Your task to perform on an android device: Play the latest video from the Wall Street Journal Image 0: 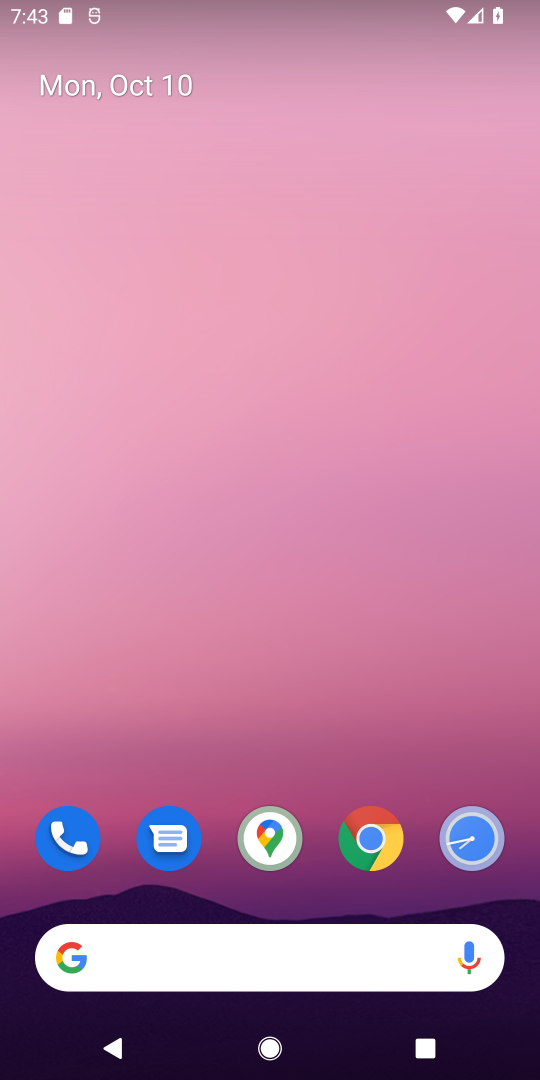
Step 0: drag from (291, 894) to (389, 100)
Your task to perform on an android device: Play the latest video from the Wall Street Journal Image 1: 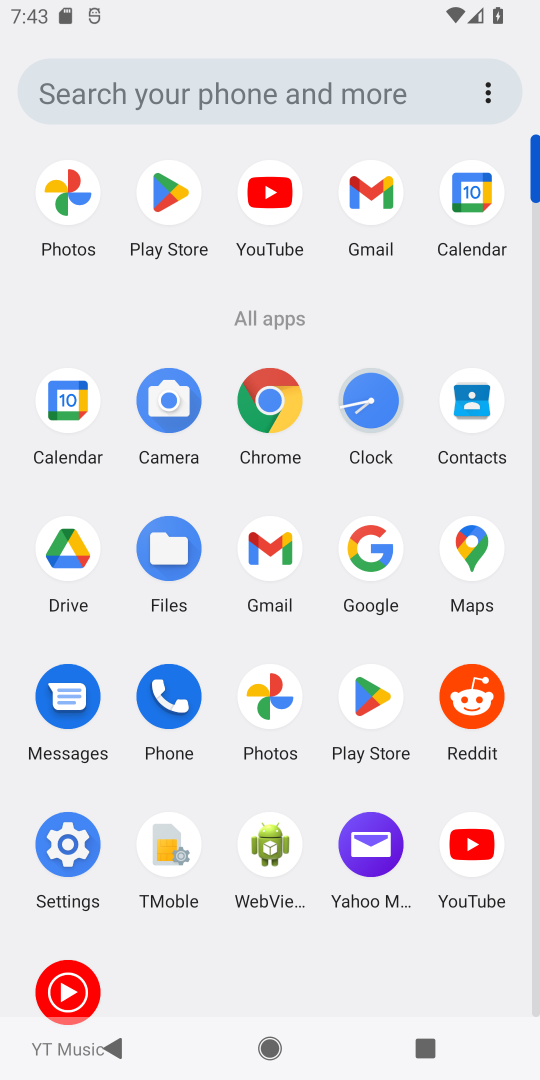
Step 1: click (263, 197)
Your task to perform on an android device: Play the latest video from the Wall Street Journal Image 2: 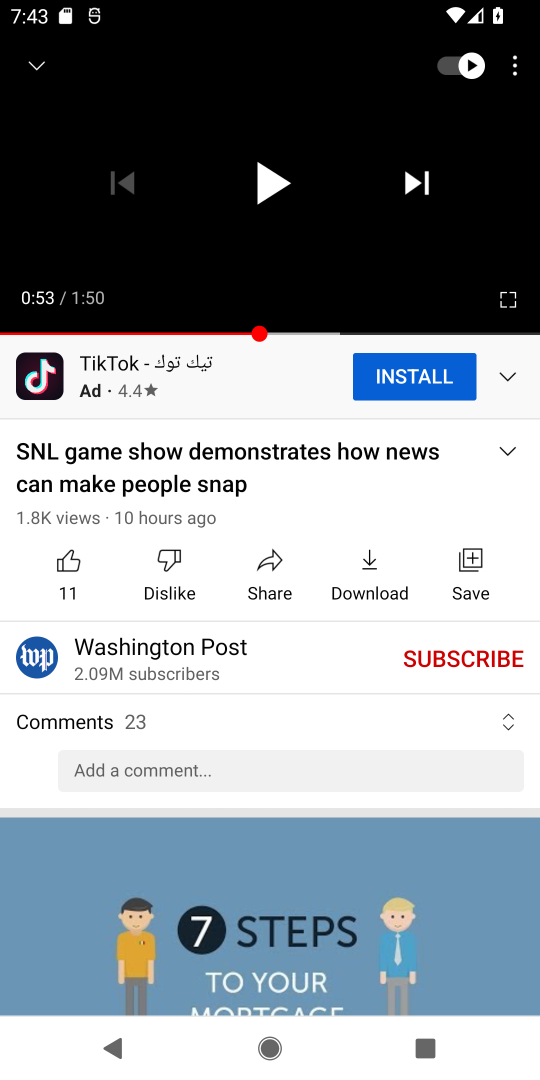
Step 2: click (40, 62)
Your task to perform on an android device: Play the latest video from the Wall Street Journal Image 3: 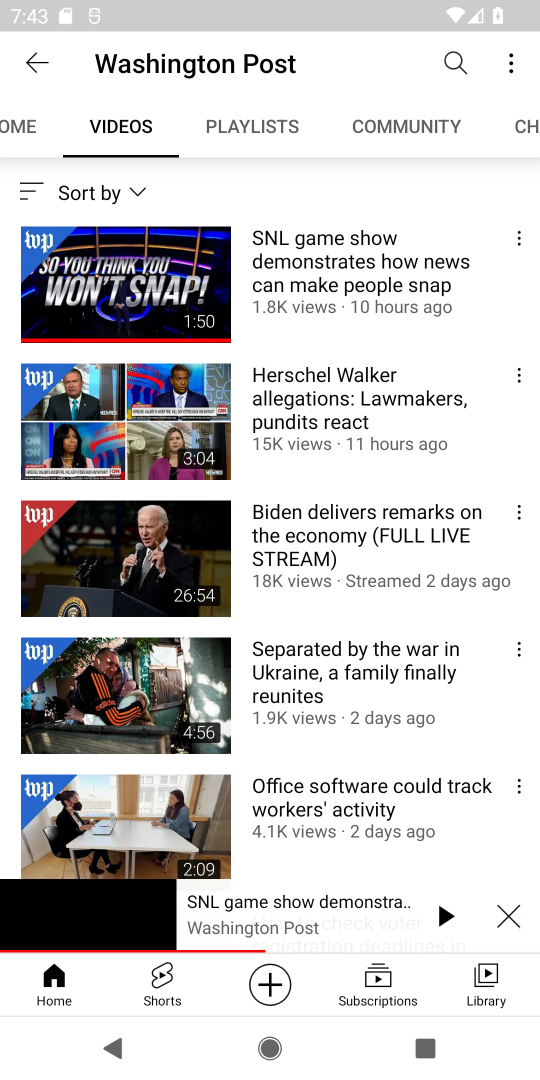
Step 3: click (452, 64)
Your task to perform on an android device: Play the latest video from the Wall Street Journal Image 4: 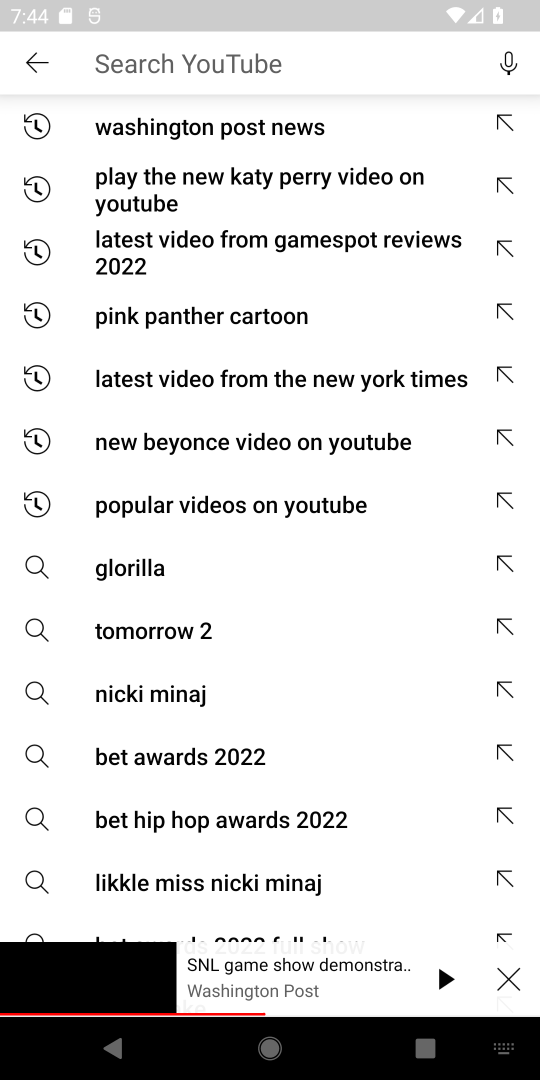
Step 4: type "wall street journal"
Your task to perform on an android device: Play the latest video from the Wall Street Journal Image 5: 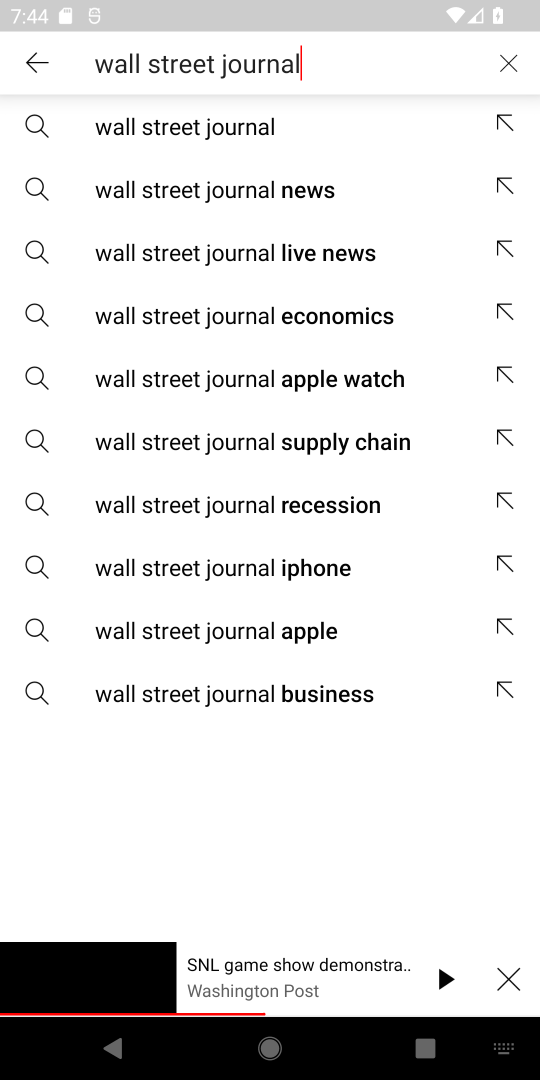
Step 5: click (197, 132)
Your task to perform on an android device: Play the latest video from the Wall Street Journal Image 6: 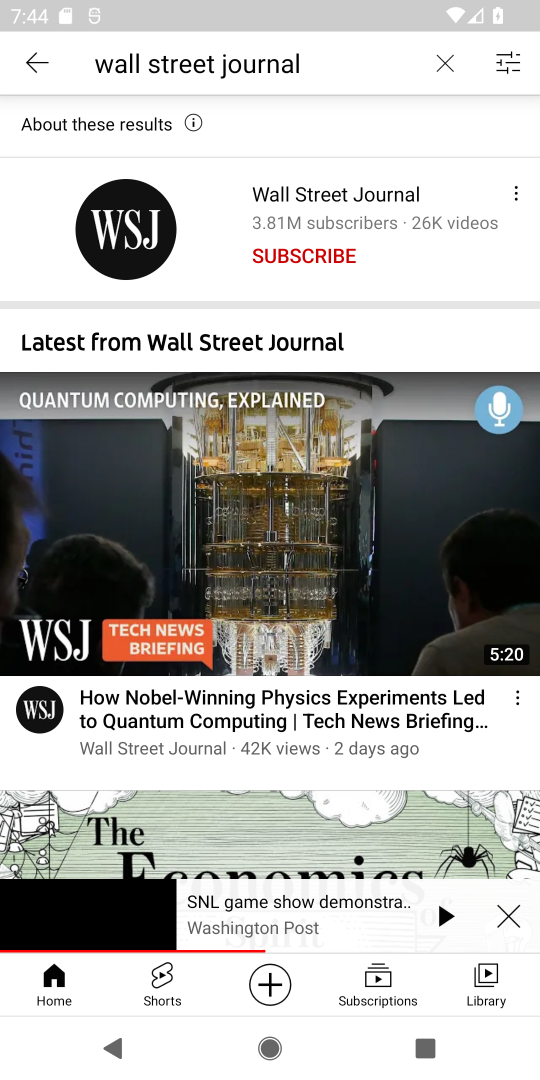
Step 6: click (304, 196)
Your task to perform on an android device: Play the latest video from the Wall Street Journal Image 7: 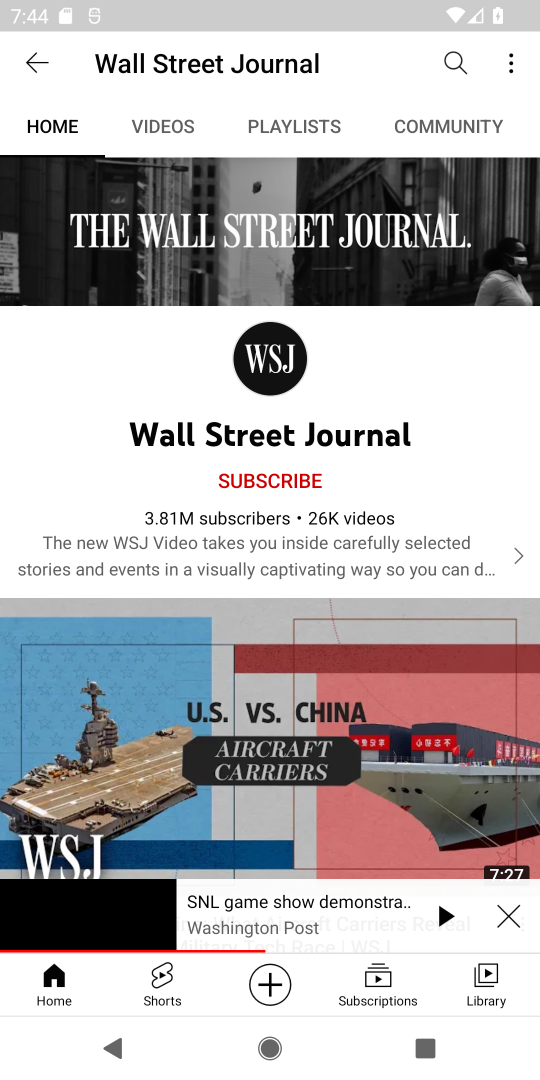
Step 7: click (165, 124)
Your task to perform on an android device: Play the latest video from the Wall Street Journal Image 8: 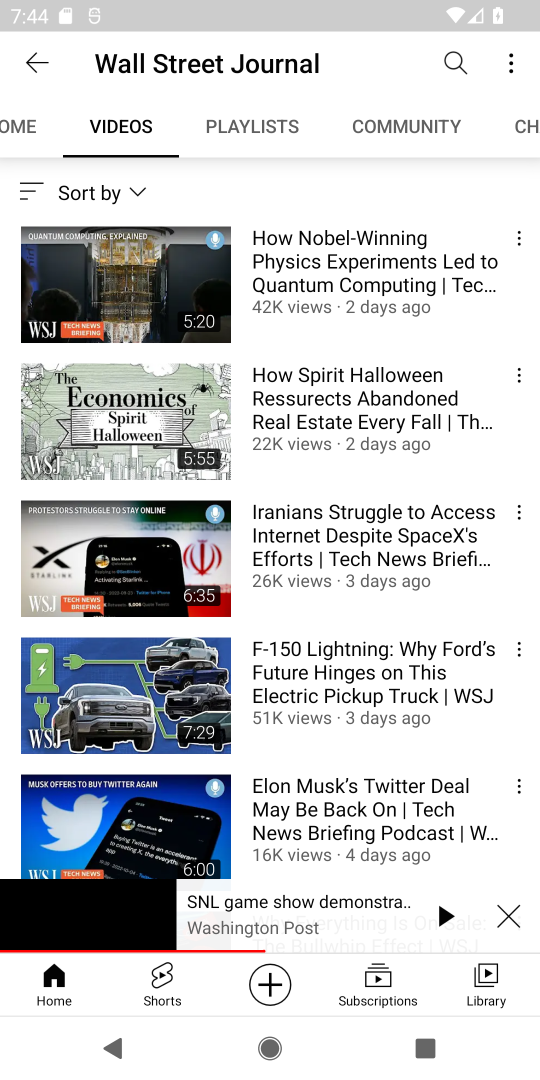
Step 8: click (120, 282)
Your task to perform on an android device: Play the latest video from the Wall Street Journal Image 9: 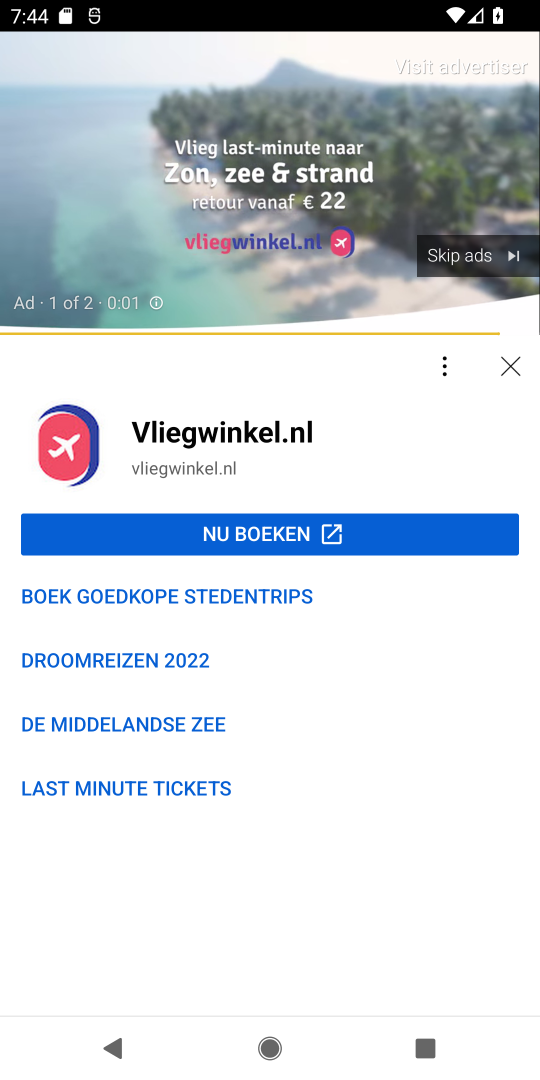
Step 9: click (473, 258)
Your task to perform on an android device: Play the latest video from the Wall Street Journal Image 10: 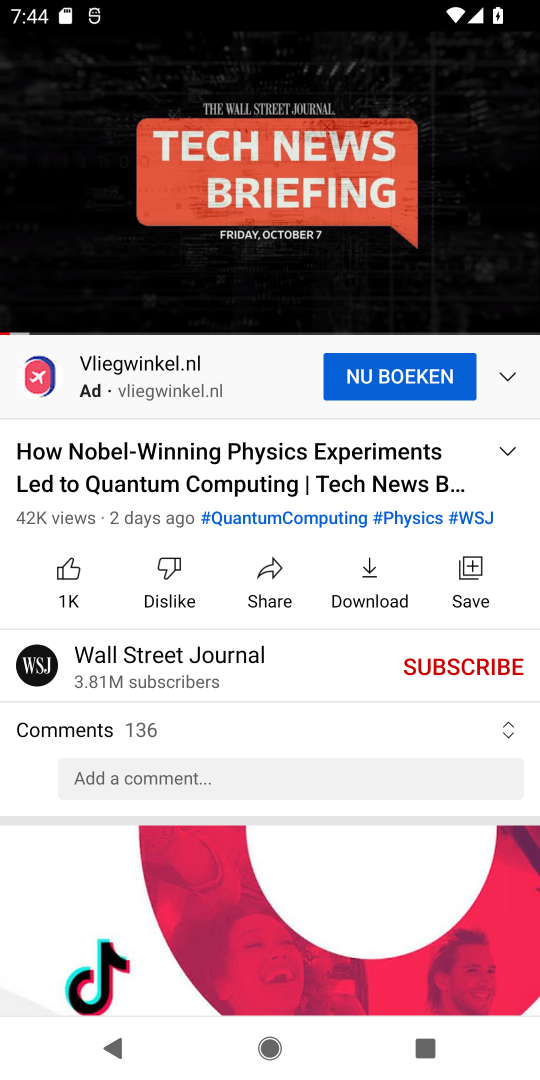
Step 10: click (276, 166)
Your task to perform on an android device: Play the latest video from the Wall Street Journal Image 11: 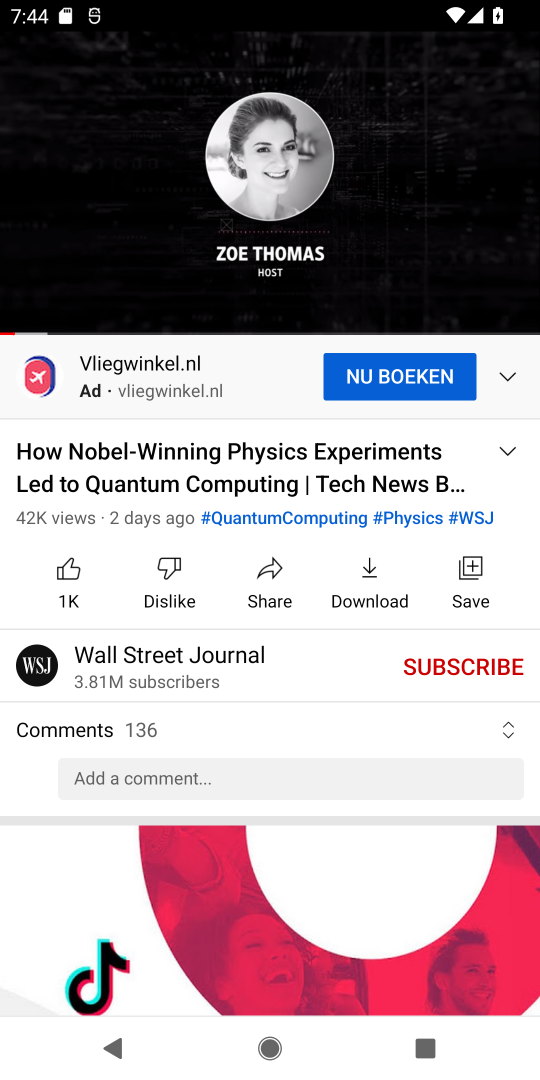
Step 11: click (271, 173)
Your task to perform on an android device: Play the latest video from the Wall Street Journal Image 12: 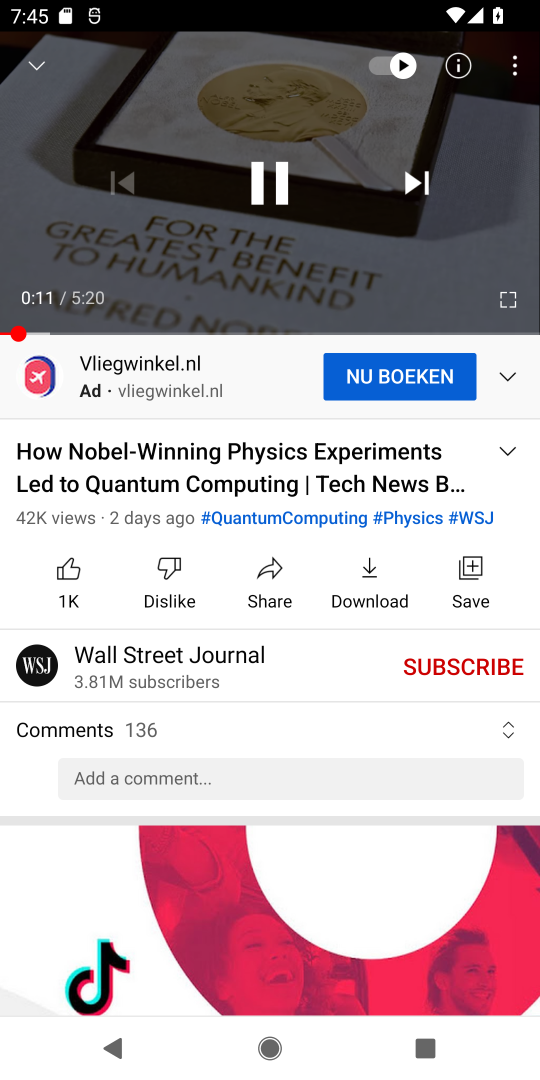
Step 12: click (271, 173)
Your task to perform on an android device: Play the latest video from the Wall Street Journal Image 13: 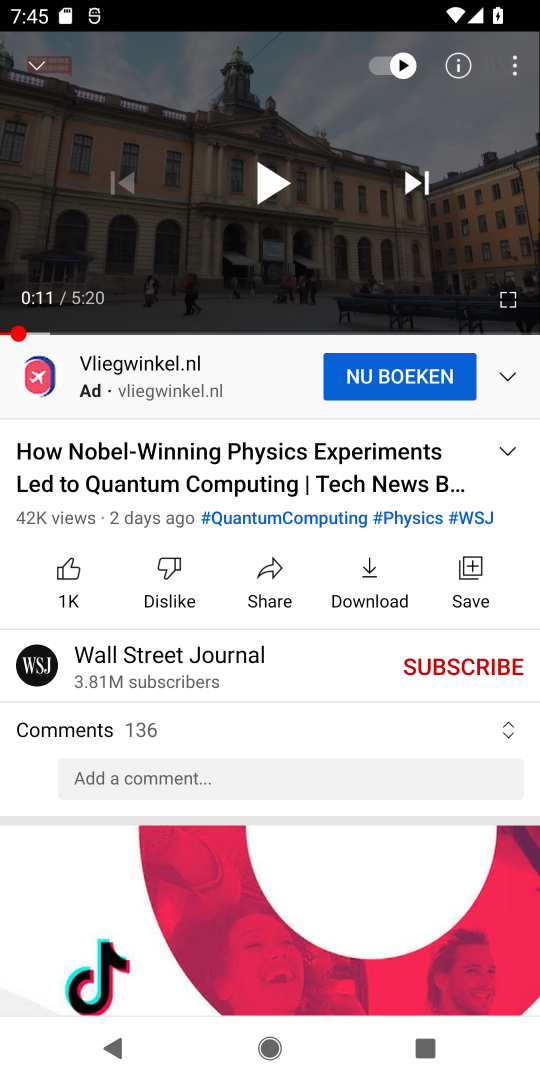
Step 13: task complete